Your task to perform on an android device: delete browsing data in the chrome app Image 0: 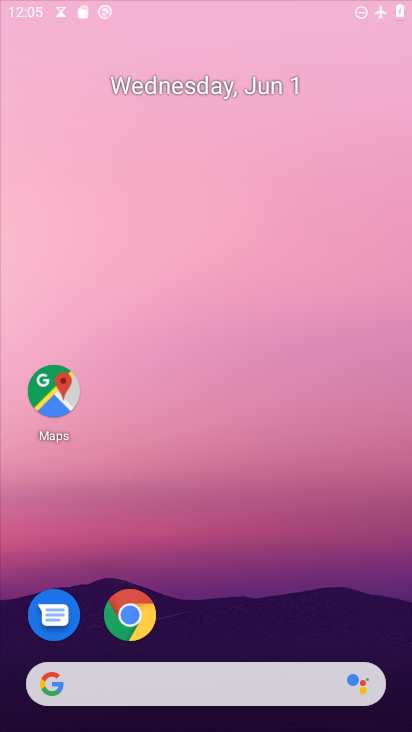
Step 0: press home button
Your task to perform on an android device: delete browsing data in the chrome app Image 1: 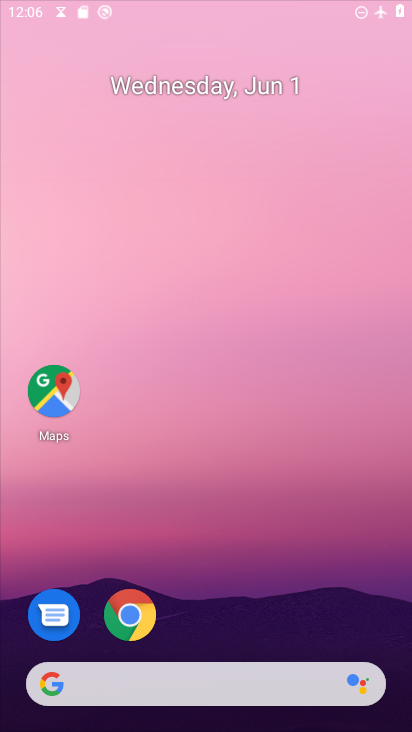
Step 1: drag from (240, 661) to (315, 25)
Your task to perform on an android device: delete browsing data in the chrome app Image 2: 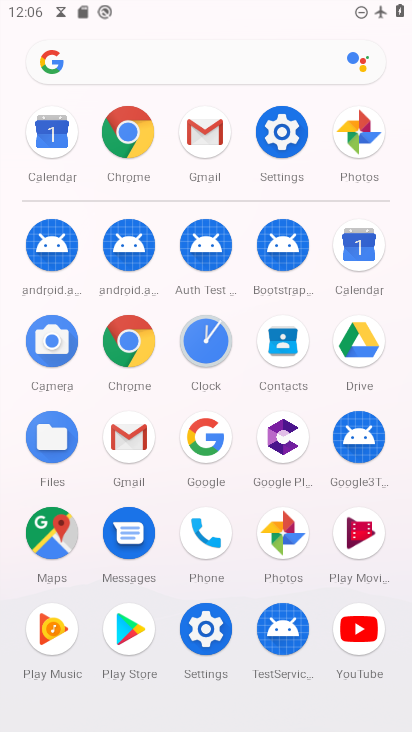
Step 2: click (134, 331)
Your task to perform on an android device: delete browsing data in the chrome app Image 3: 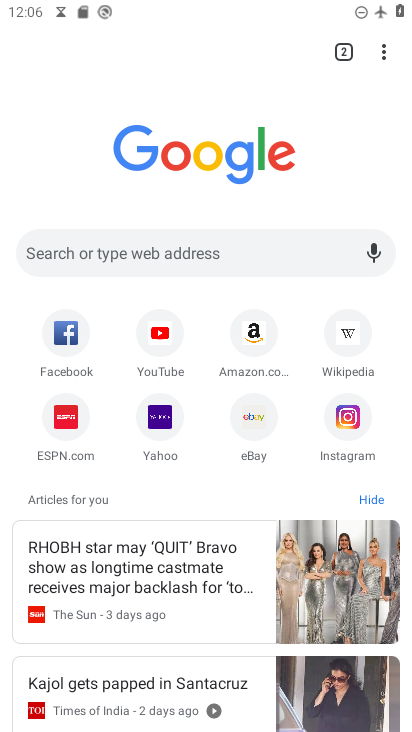
Step 3: task complete